Your task to perform on an android device: Turn on the flashlight Image 0: 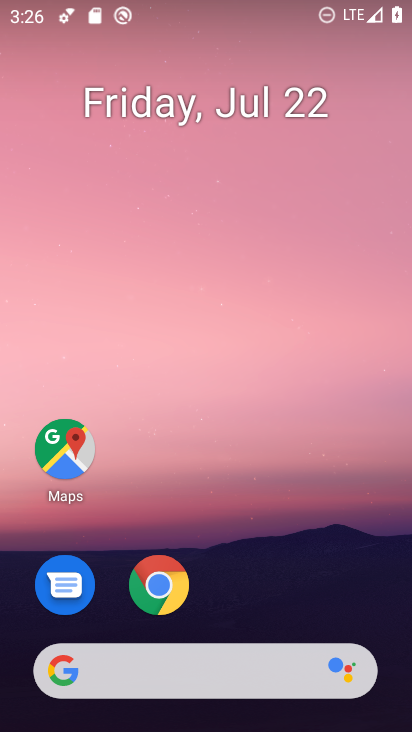
Step 0: drag from (277, 582) to (296, 24)
Your task to perform on an android device: Turn on the flashlight Image 1: 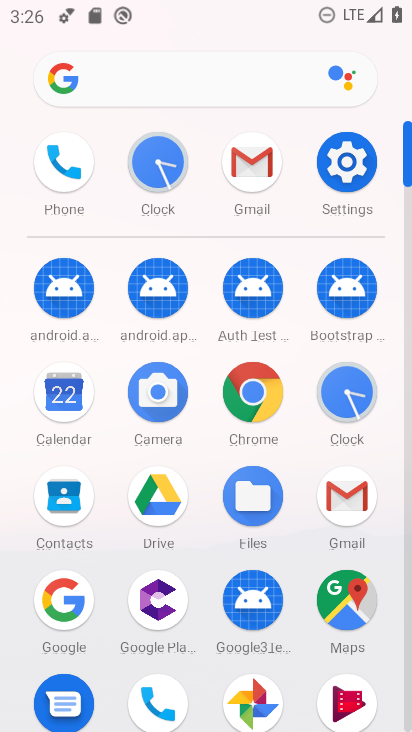
Step 1: click (343, 156)
Your task to perform on an android device: Turn on the flashlight Image 2: 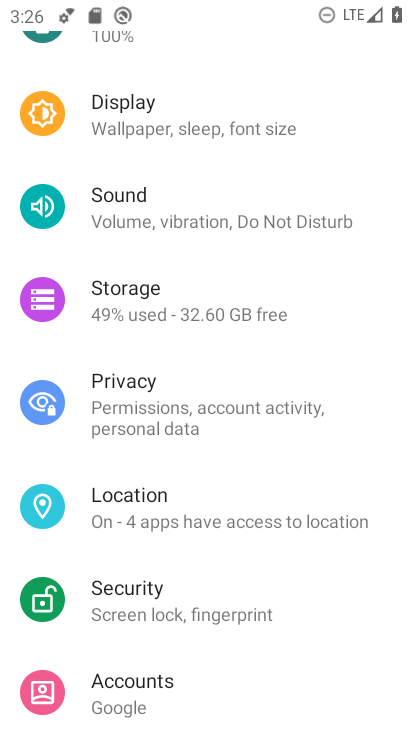
Step 2: drag from (213, 212) to (229, 588)
Your task to perform on an android device: Turn on the flashlight Image 3: 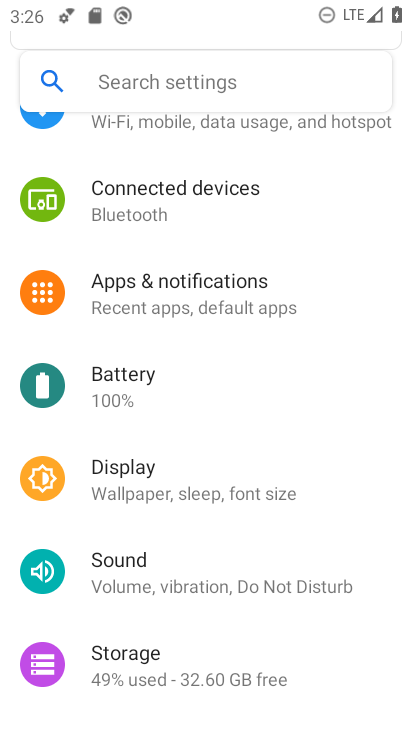
Step 3: drag from (258, 261) to (252, 624)
Your task to perform on an android device: Turn on the flashlight Image 4: 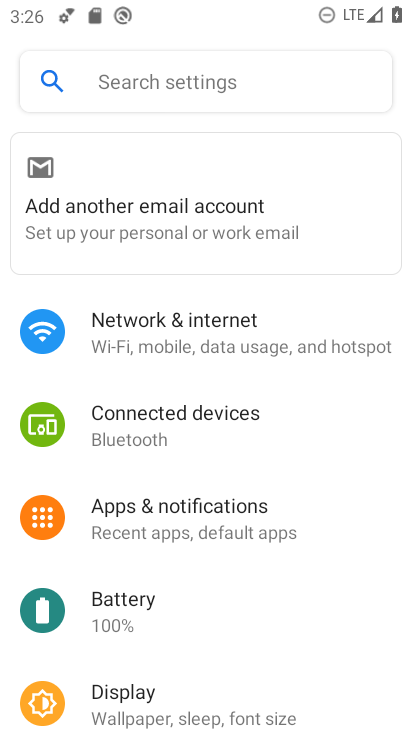
Step 4: click (275, 73)
Your task to perform on an android device: Turn on the flashlight Image 5: 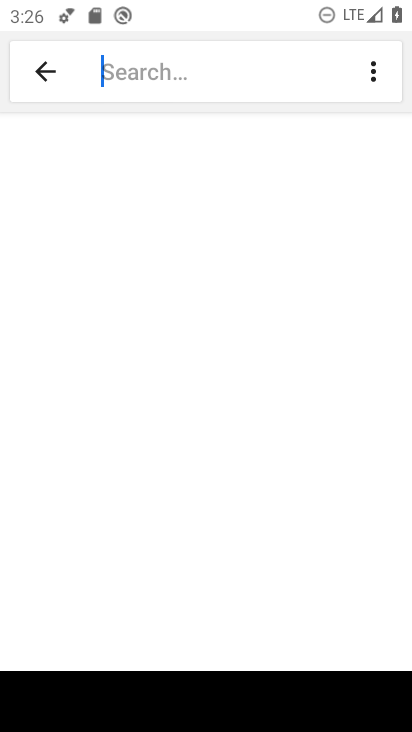
Step 5: type "Flashlight"
Your task to perform on an android device: Turn on the flashlight Image 6: 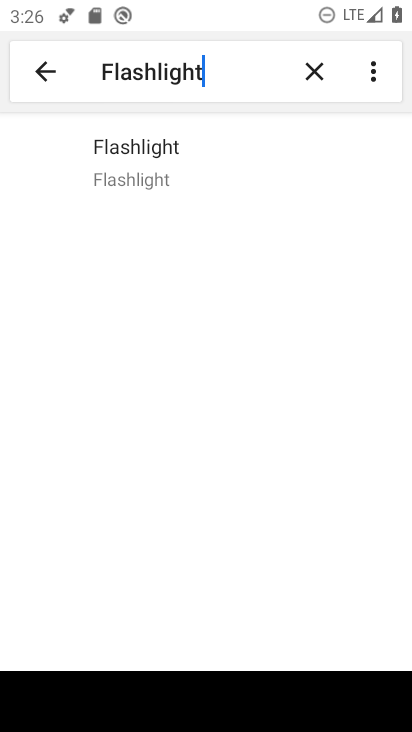
Step 6: click (153, 150)
Your task to perform on an android device: Turn on the flashlight Image 7: 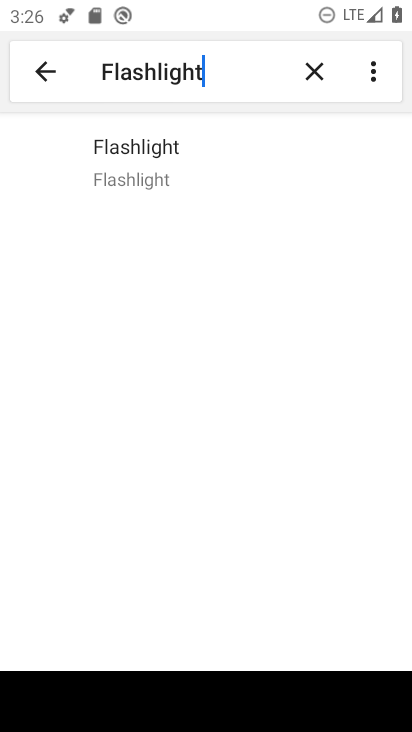
Step 7: click (140, 162)
Your task to perform on an android device: Turn on the flashlight Image 8: 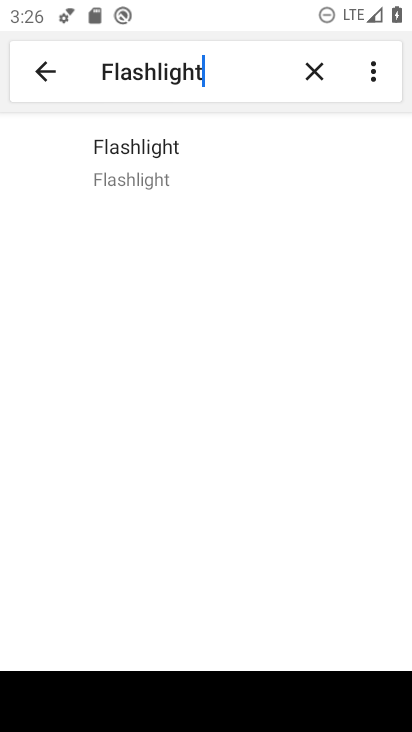
Step 8: task complete